Your task to perform on an android device: Show the shopping cart on amazon.com. Image 0: 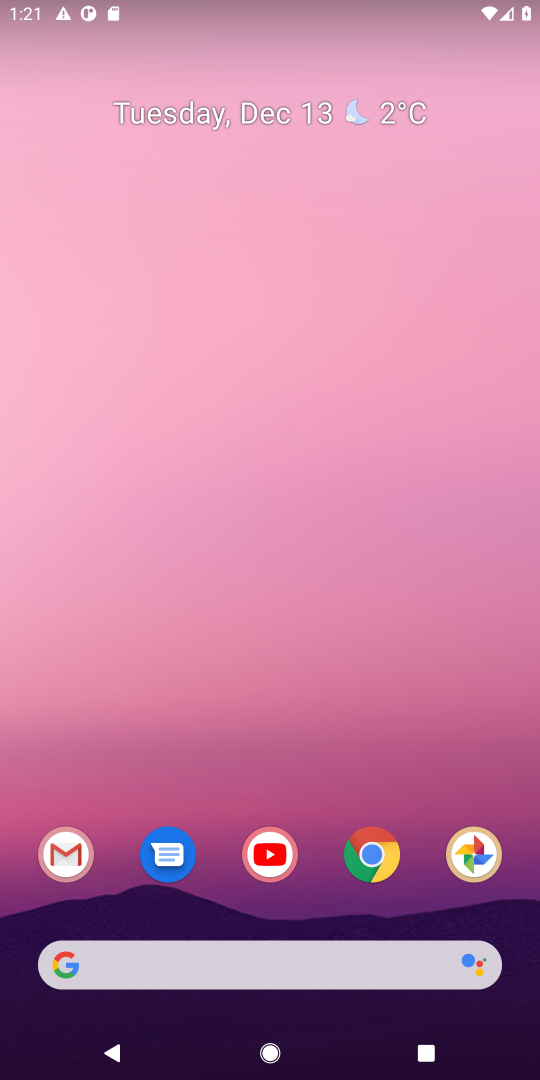
Step 0: click (264, 959)
Your task to perform on an android device: Show the shopping cart on amazon.com. Image 1: 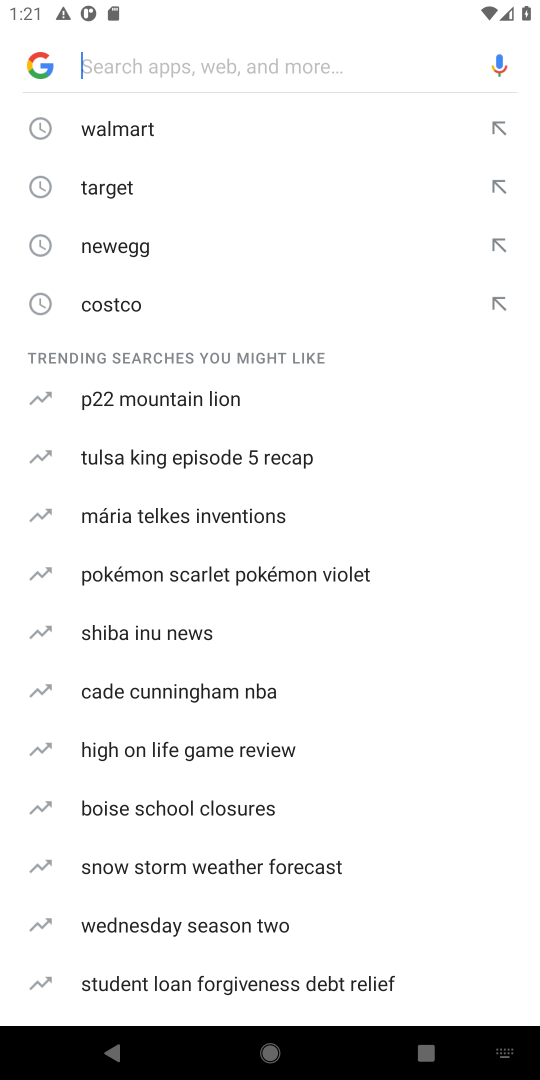
Step 1: type "amazon"
Your task to perform on an android device: Show the shopping cart on amazon.com. Image 2: 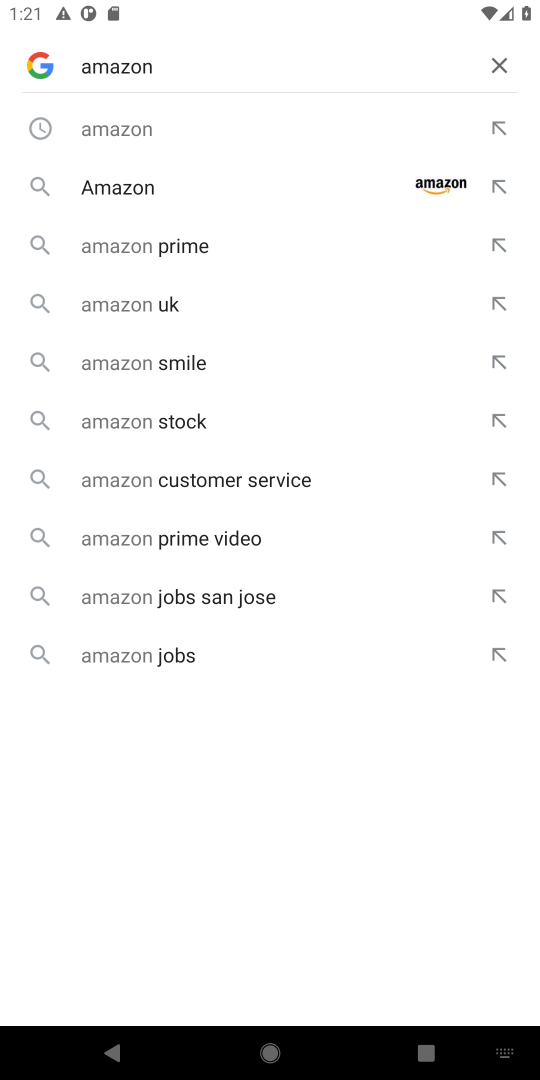
Step 2: click (138, 174)
Your task to perform on an android device: Show the shopping cart on amazon.com. Image 3: 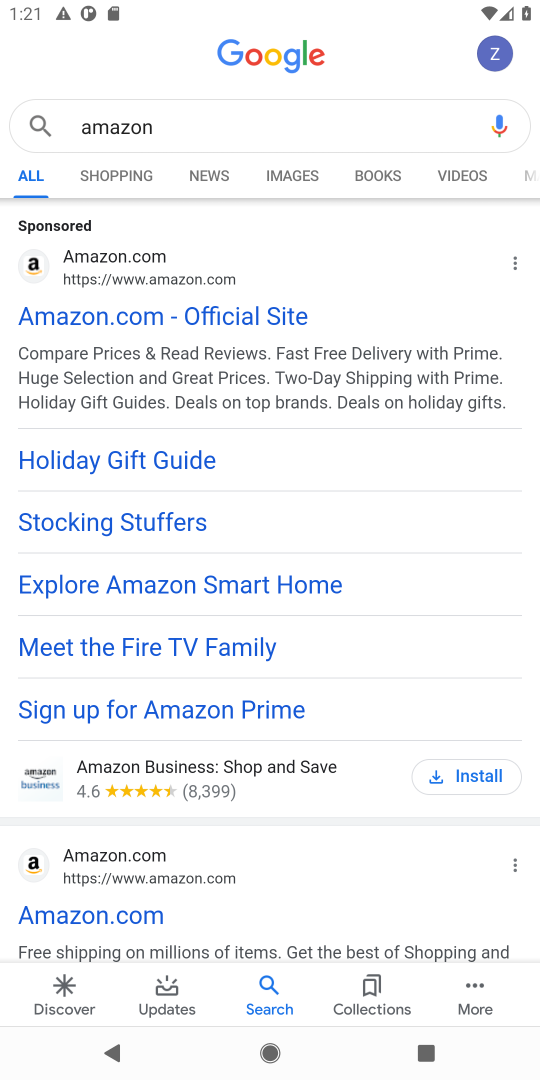
Step 3: click (89, 336)
Your task to perform on an android device: Show the shopping cart on amazon.com. Image 4: 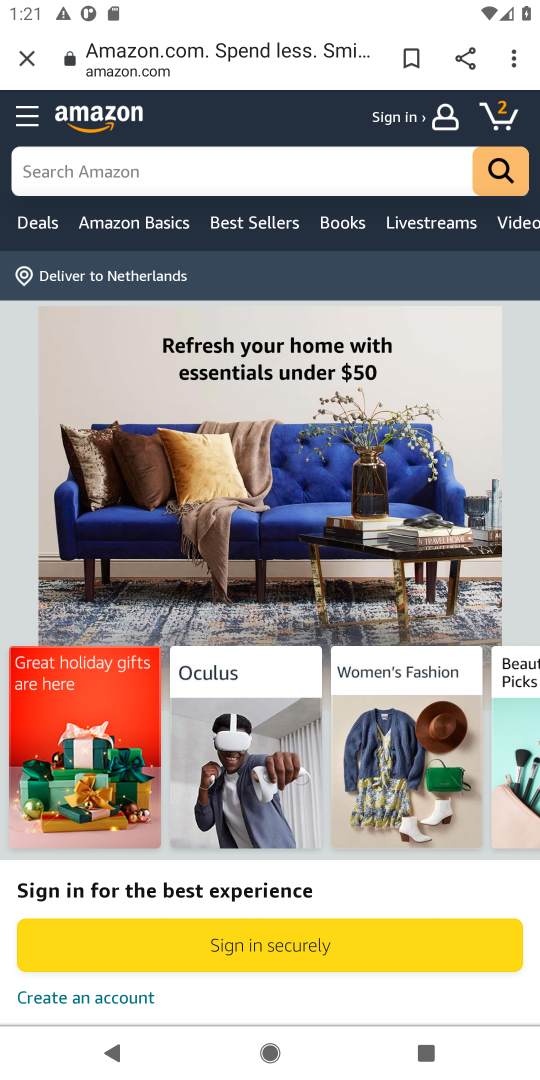
Step 4: click (119, 170)
Your task to perform on an android device: Show the shopping cart on amazon.com. Image 5: 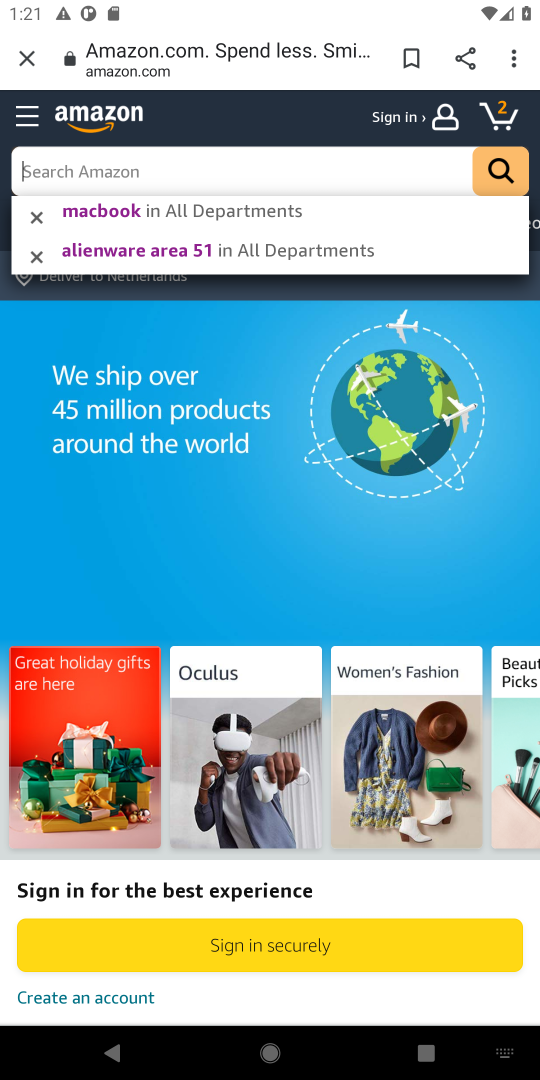
Step 5: click (516, 115)
Your task to perform on an android device: Show the shopping cart on amazon.com. Image 6: 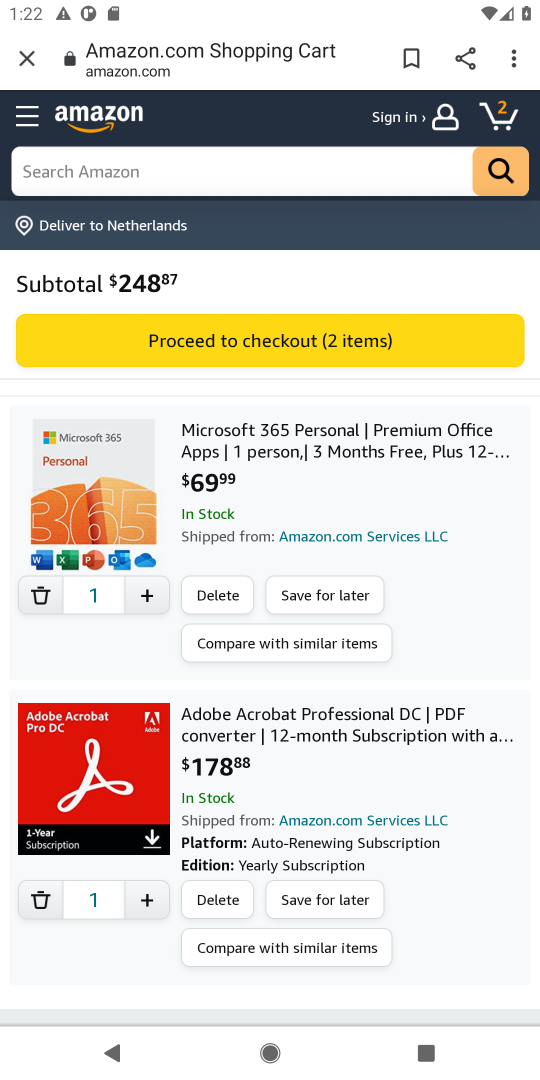
Step 6: click (34, 594)
Your task to perform on an android device: Show the shopping cart on amazon.com. Image 7: 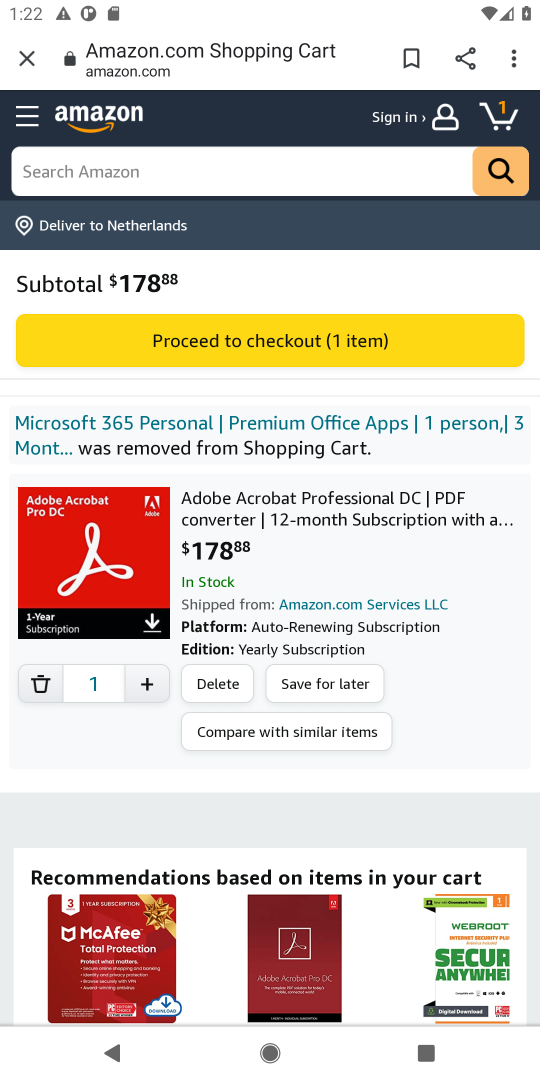
Step 7: click (45, 689)
Your task to perform on an android device: Show the shopping cart on amazon.com. Image 8: 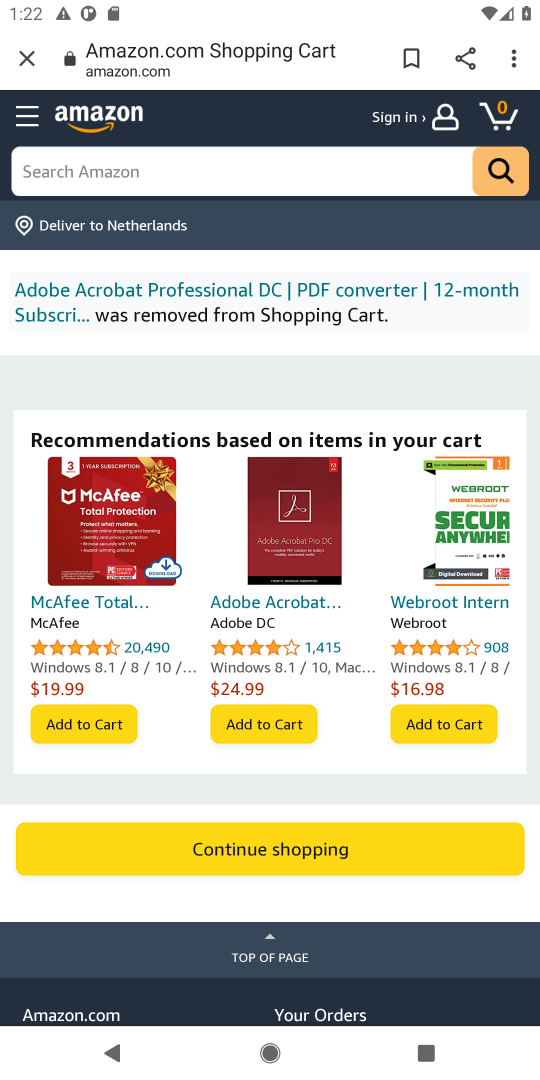
Step 8: task complete